Your task to perform on an android device: Open settings Image 0: 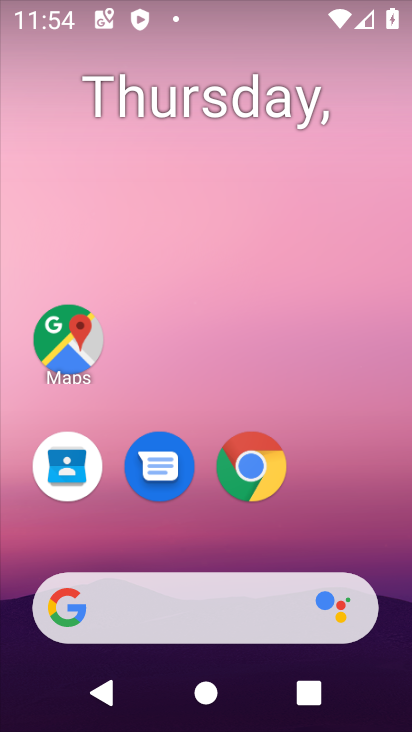
Step 0: drag from (209, 539) to (206, 69)
Your task to perform on an android device: Open settings Image 1: 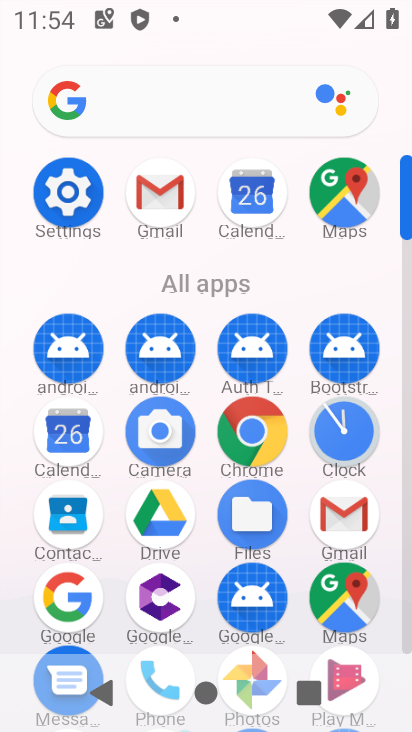
Step 1: click (58, 201)
Your task to perform on an android device: Open settings Image 2: 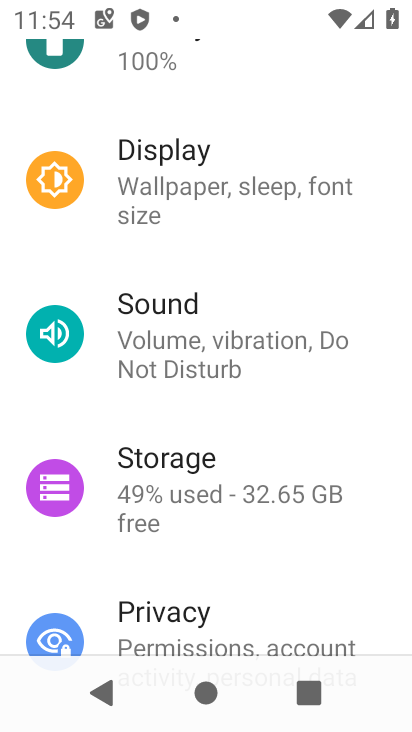
Step 2: task complete